Your task to perform on an android device: Open calendar and show me the third week of next month Image 0: 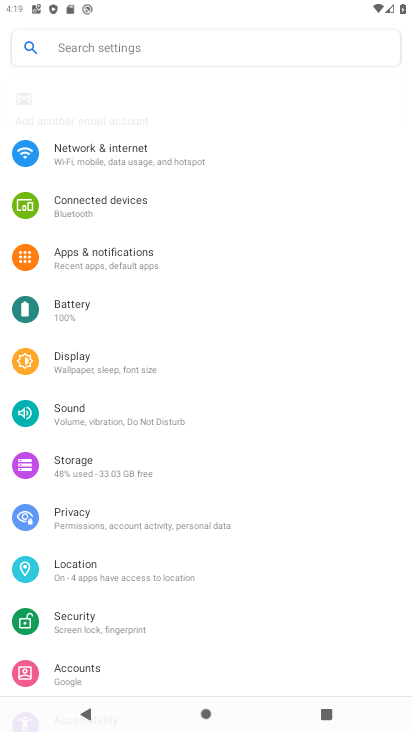
Step 0: drag from (265, 640) to (265, 221)
Your task to perform on an android device: Open calendar and show me the third week of next month Image 1: 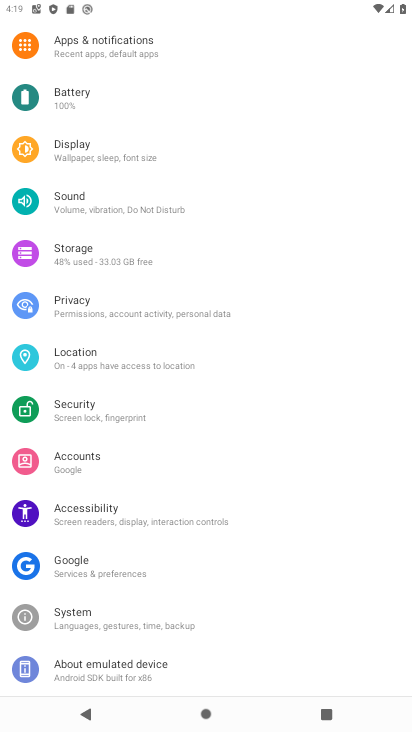
Step 1: press home button
Your task to perform on an android device: Open calendar and show me the third week of next month Image 2: 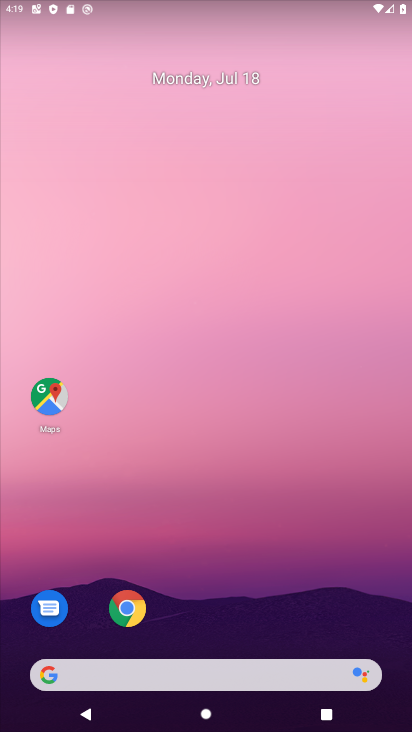
Step 2: drag from (229, 597) to (239, 0)
Your task to perform on an android device: Open calendar and show me the third week of next month Image 3: 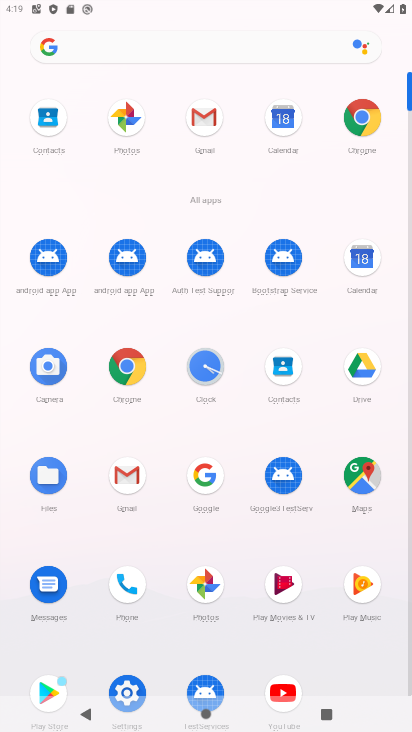
Step 3: click (354, 259)
Your task to perform on an android device: Open calendar and show me the third week of next month Image 4: 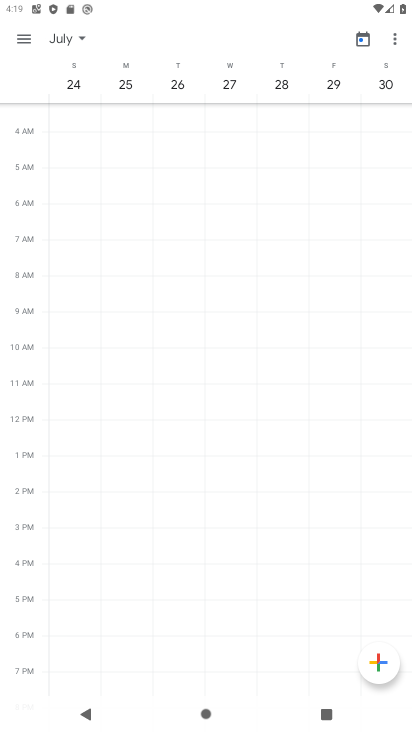
Step 4: click (22, 45)
Your task to perform on an android device: Open calendar and show me the third week of next month Image 5: 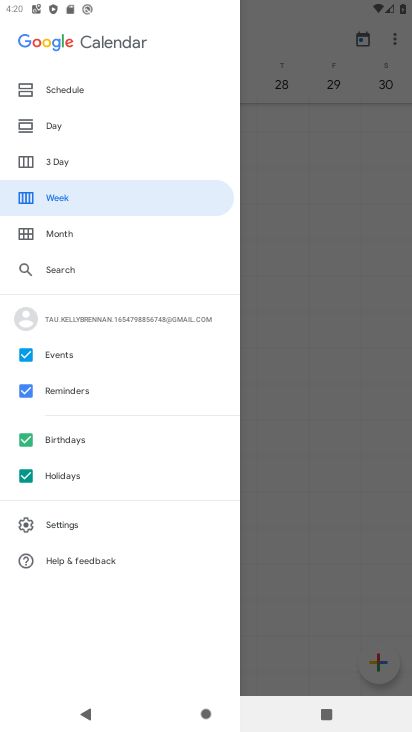
Step 5: click (392, 208)
Your task to perform on an android device: Open calendar and show me the third week of next month Image 6: 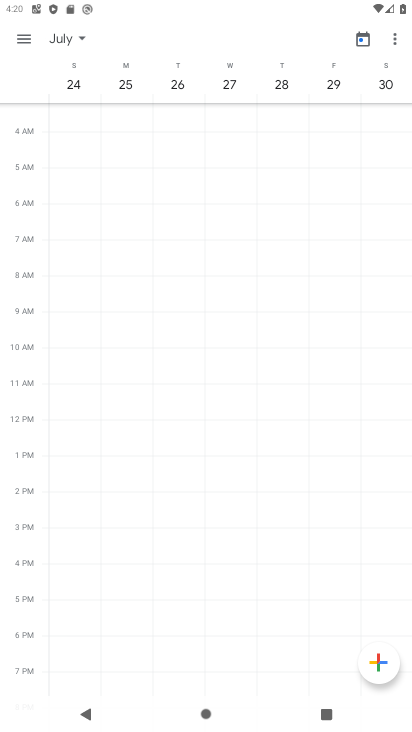
Step 6: click (77, 36)
Your task to perform on an android device: Open calendar and show me the third week of next month Image 7: 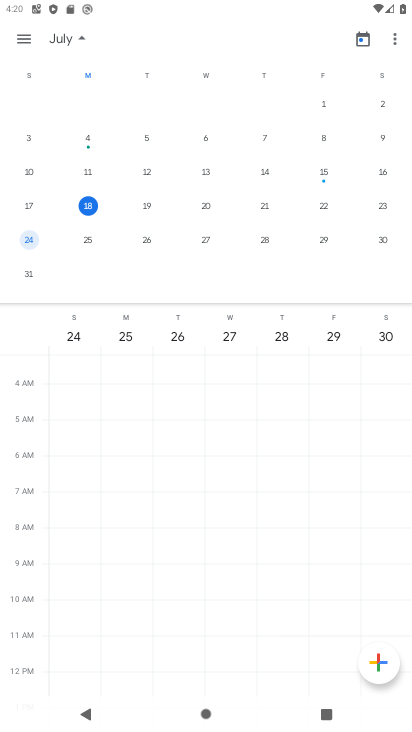
Step 7: drag from (299, 249) to (18, 172)
Your task to perform on an android device: Open calendar and show me the third week of next month Image 8: 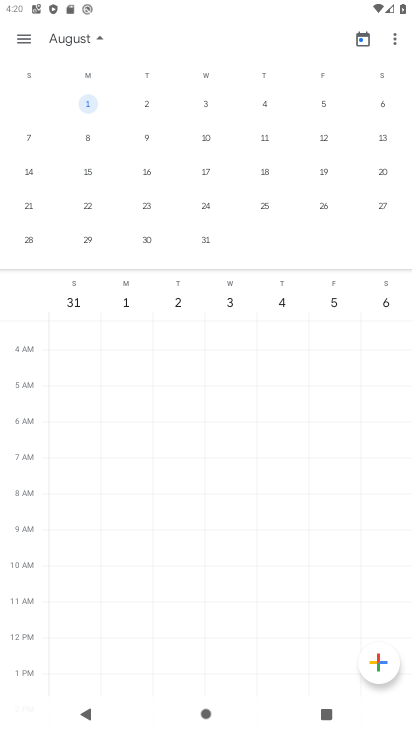
Step 8: click (141, 171)
Your task to perform on an android device: Open calendar and show me the third week of next month Image 9: 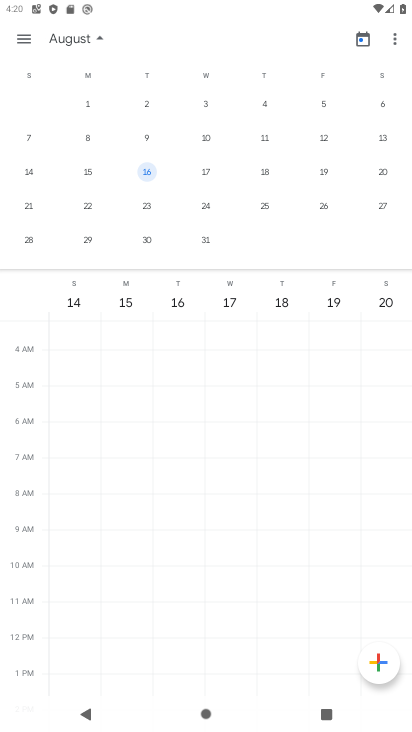
Step 9: task complete